Your task to perform on an android device: turn vacation reply on in the gmail app Image 0: 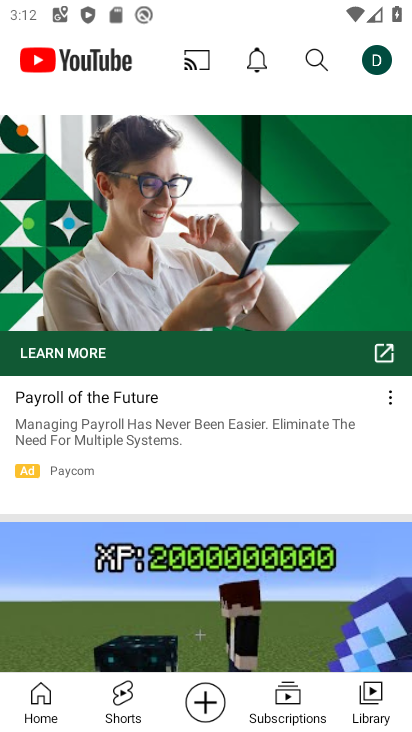
Step 0: press home button
Your task to perform on an android device: turn vacation reply on in the gmail app Image 1: 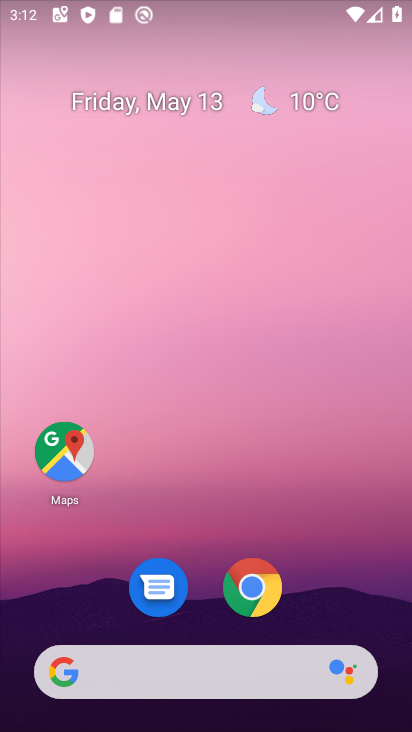
Step 1: drag from (341, 613) to (346, 64)
Your task to perform on an android device: turn vacation reply on in the gmail app Image 2: 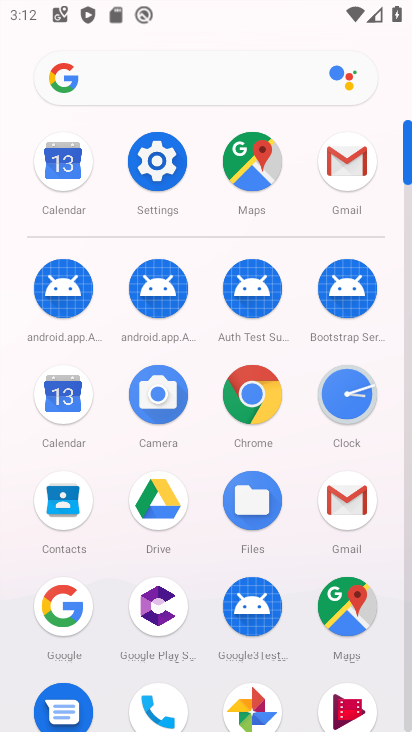
Step 2: click (349, 479)
Your task to perform on an android device: turn vacation reply on in the gmail app Image 3: 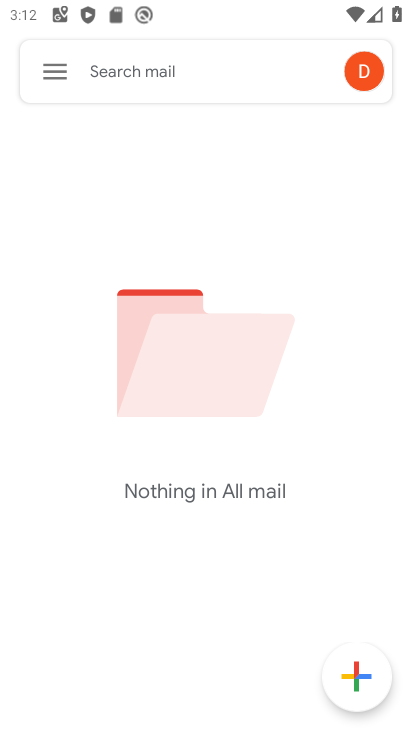
Step 3: click (48, 71)
Your task to perform on an android device: turn vacation reply on in the gmail app Image 4: 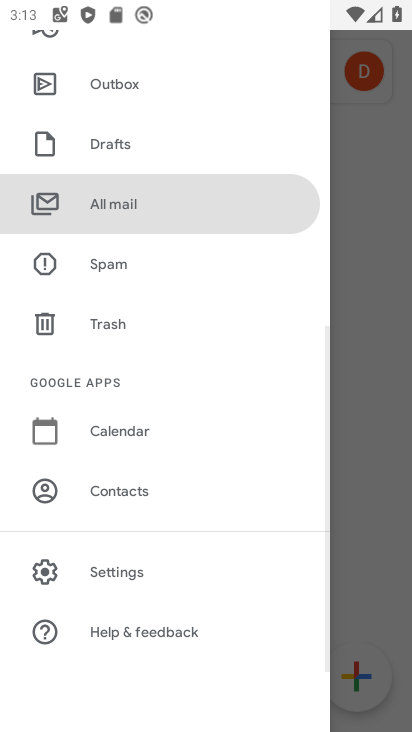
Step 4: click (141, 577)
Your task to perform on an android device: turn vacation reply on in the gmail app Image 5: 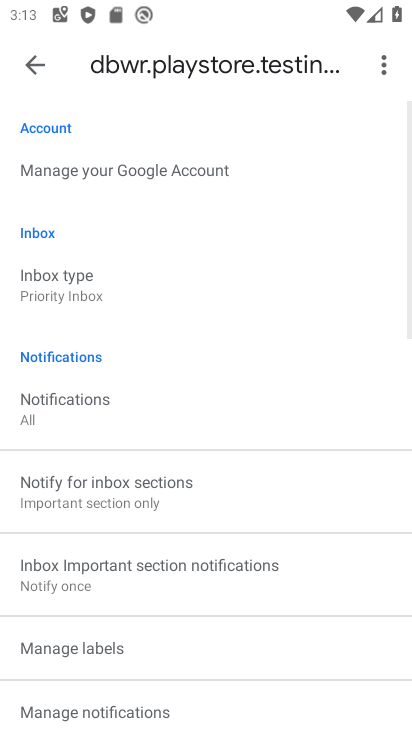
Step 5: drag from (133, 679) to (174, 116)
Your task to perform on an android device: turn vacation reply on in the gmail app Image 6: 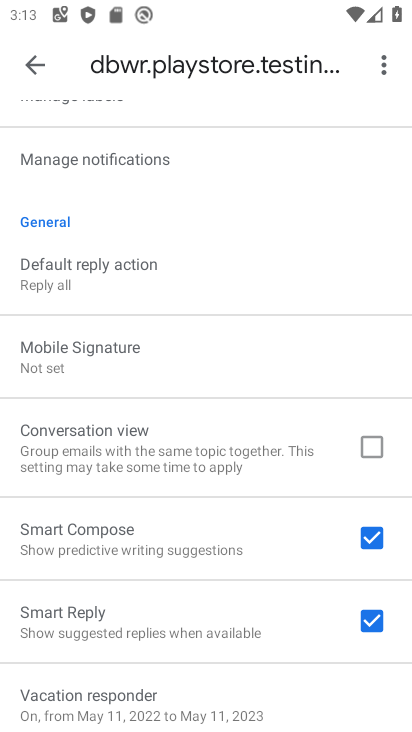
Step 6: click (233, 702)
Your task to perform on an android device: turn vacation reply on in the gmail app Image 7: 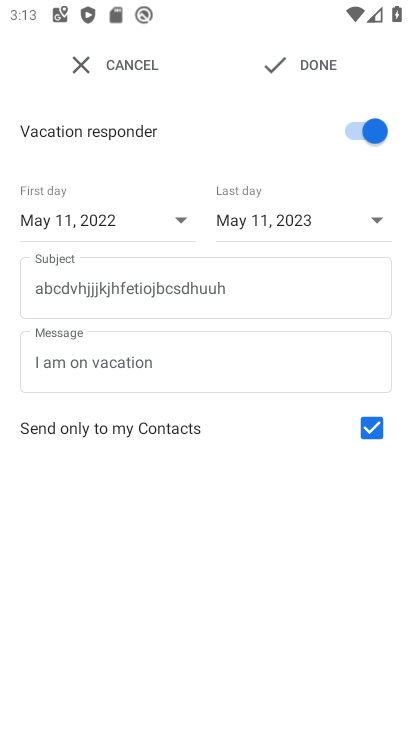
Step 7: click (318, 52)
Your task to perform on an android device: turn vacation reply on in the gmail app Image 8: 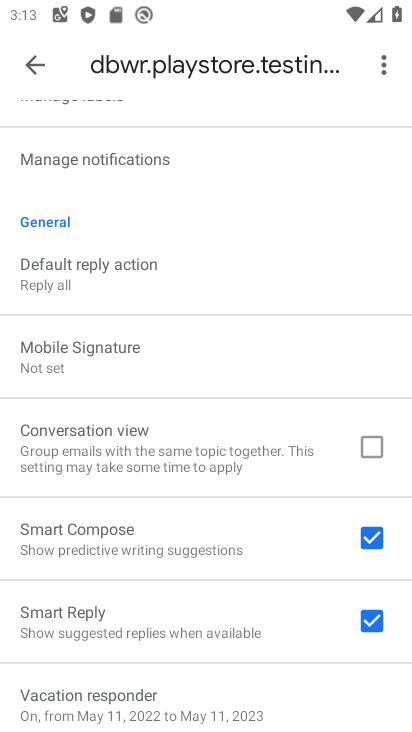
Step 8: task complete